Your task to perform on an android device: Open Google Maps Image 0: 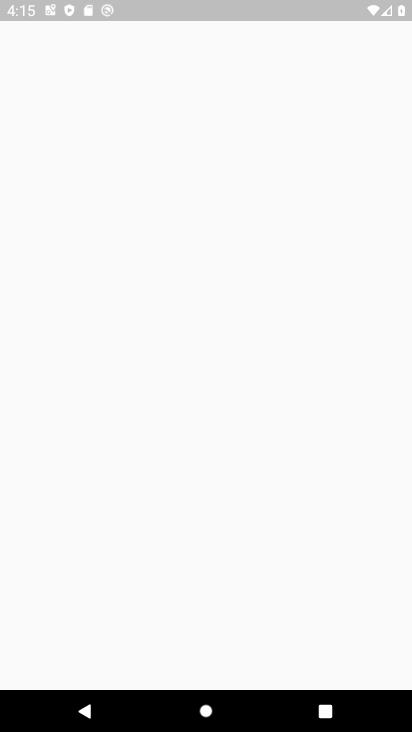
Step 0: press home button
Your task to perform on an android device: Open Google Maps Image 1: 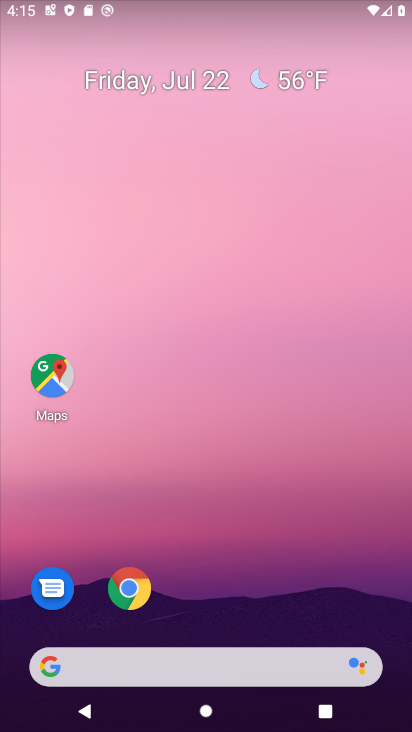
Step 1: click (67, 385)
Your task to perform on an android device: Open Google Maps Image 2: 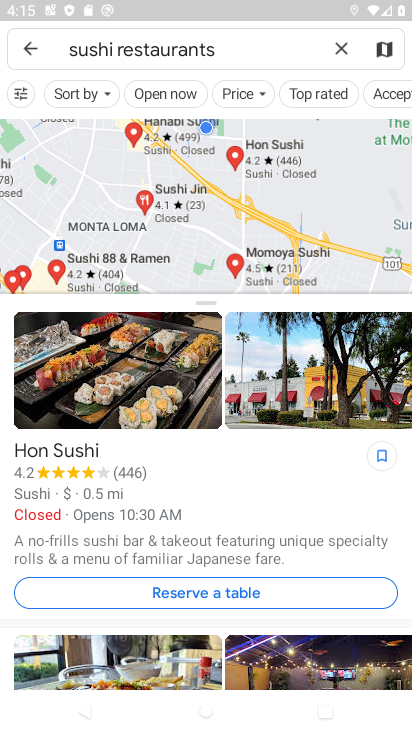
Step 2: task complete